Your task to perform on an android device: clear history in the chrome app Image 0: 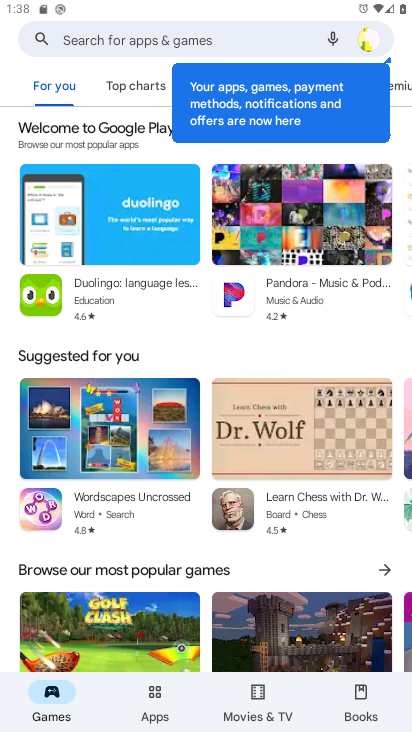
Step 0: press home button
Your task to perform on an android device: clear history in the chrome app Image 1: 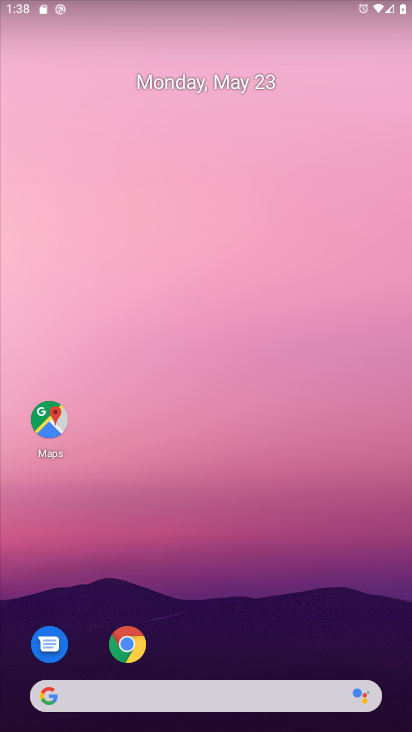
Step 1: click (133, 650)
Your task to perform on an android device: clear history in the chrome app Image 2: 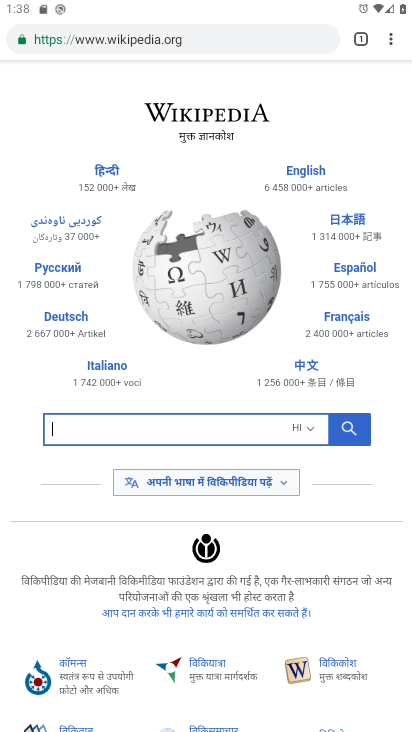
Step 2: click (392, 42)
Your task to perform on an android device: clear history in the chrome app Image 3: 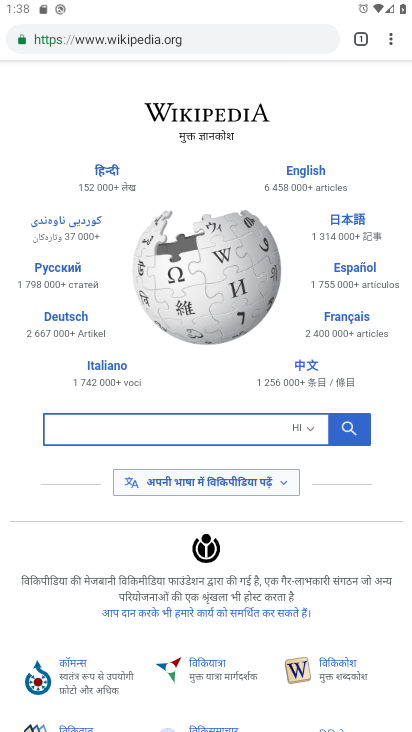
Step 3: click (392, 42)
Your task to perform on an android device: clear history in the chrome app Image 4: 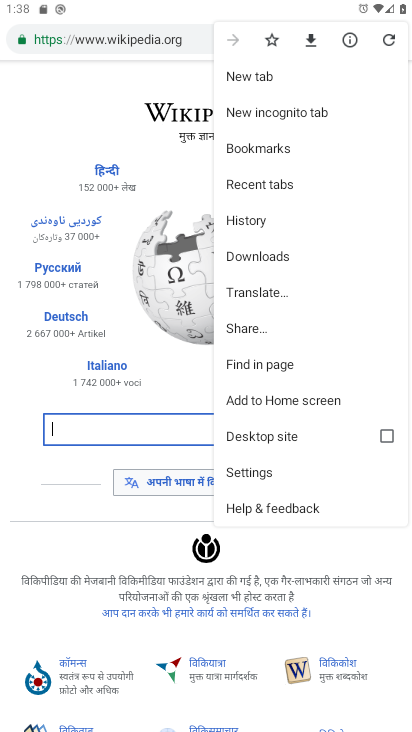
Step 4: click (244, 222)
Your task to perform on an android device: clear history in the chrome app Image 5: 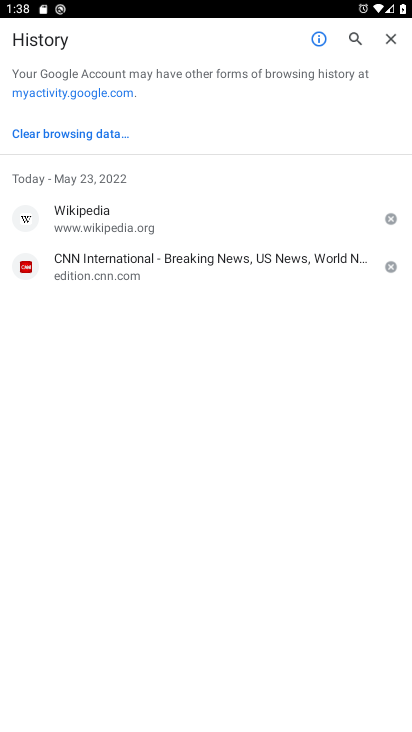
Step 5: click (89, 130)
Your task to perform on an android device: clear history in the chrome app Image 6: 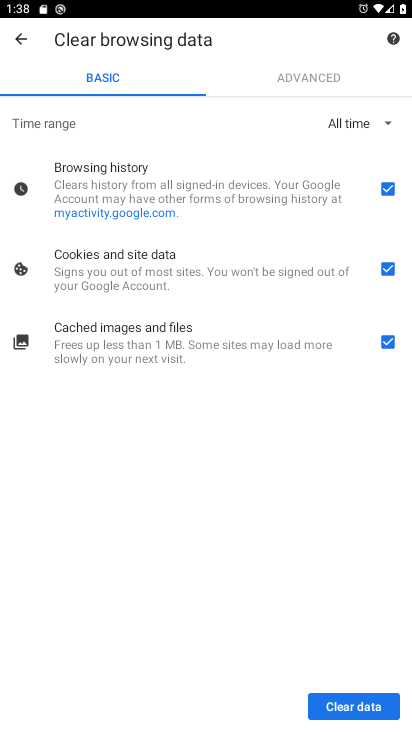
Step 6: click (346, 718)
Your task to perform on an android device: clear history in the chrome app Image 7: 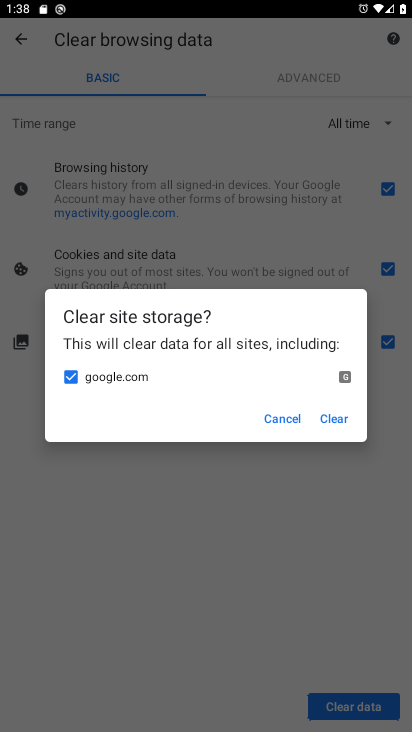
Step 7: click (336, 417)
Your task to perform on an android device: clear history in the chrome app Image 8: 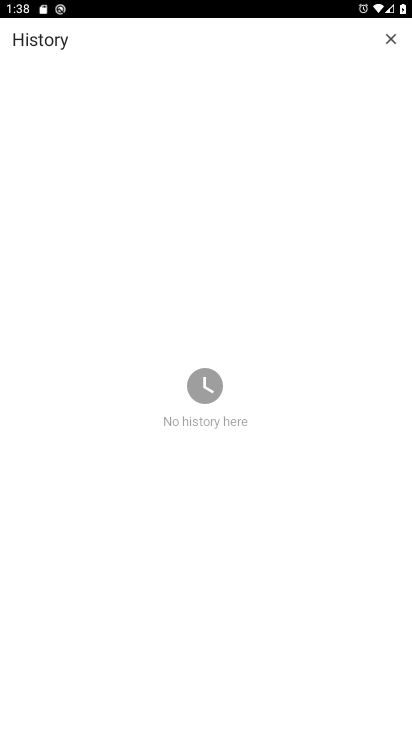
Step 8: task complete